Your task to perform on an android device: add a contact Image 0: 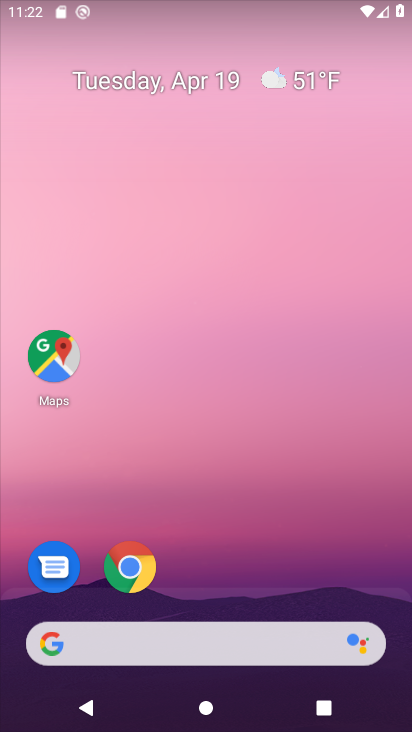
Step 0: drag from (238, 587) to (255, 11)
Your task to perform on an android device: add a contact Image 1: 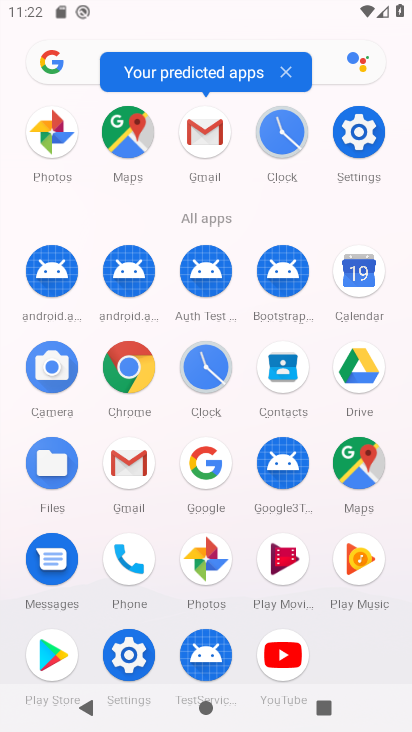
Step 1: click (293, 373)
Your task to perform on an android device: add a contact Image 2: 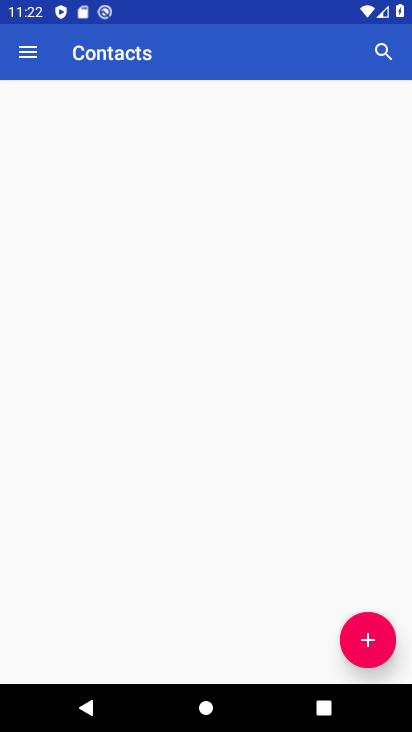
Step 2: click (364, 625)
Your task to perform on an android device: add a contact Image 3: 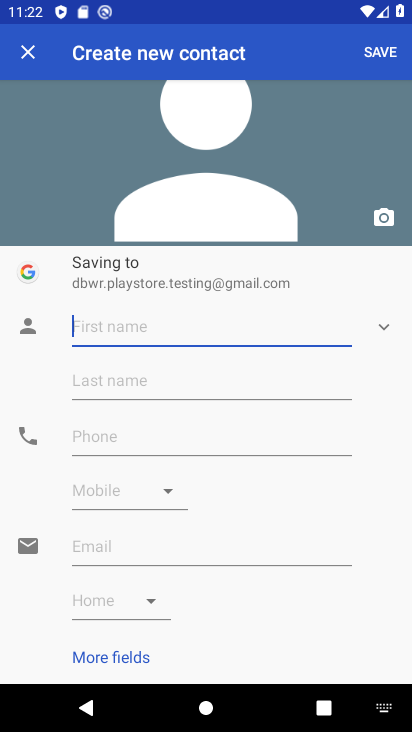
Step 3: type "flemingo"
Your task to perform on an android device: add a contact Image 4: 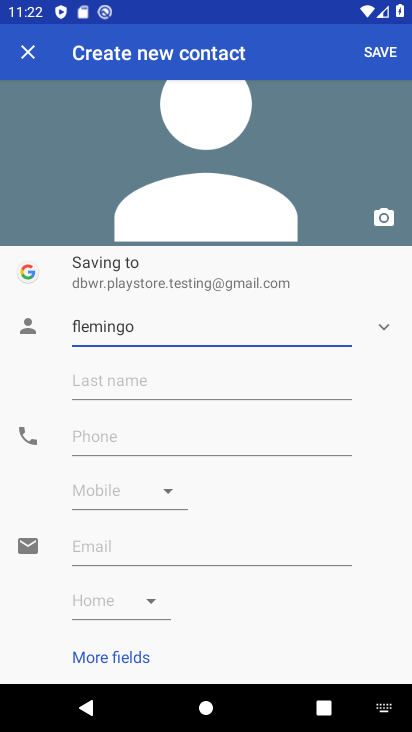
Step 4: click (376, 50)
Your task to perform on an android device: add a contact Image 5: 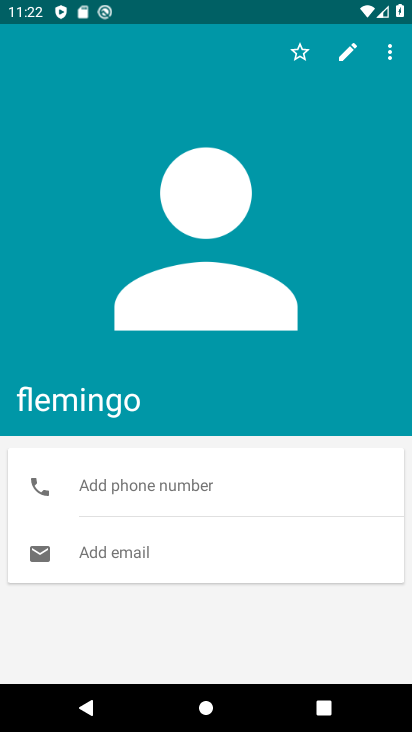
Step 5: task complete